Your task to perform on an android device: empty trash in google photos Image 0: 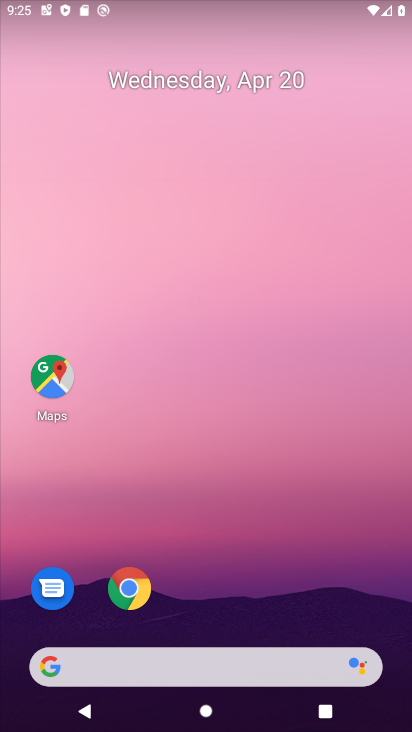
Step 0: drag from (194, 461) to (192, 154)
Your task to perform on an android device: empty trash in google photos Image 1: 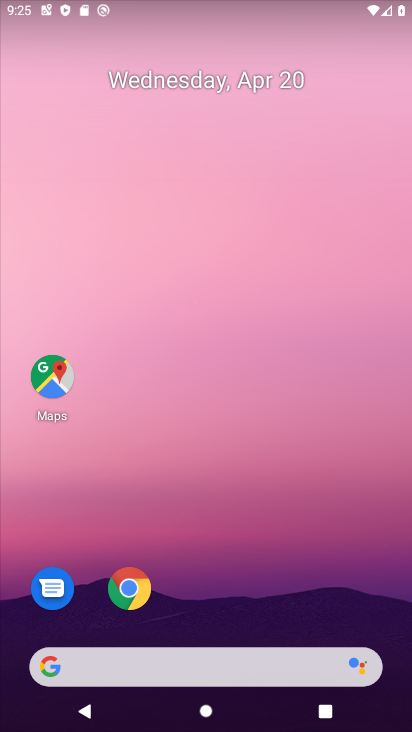
Step 1: drag from (222, 613) to (156, 133)
Your task to perform on an android device: empty trash in google photos Image 2: 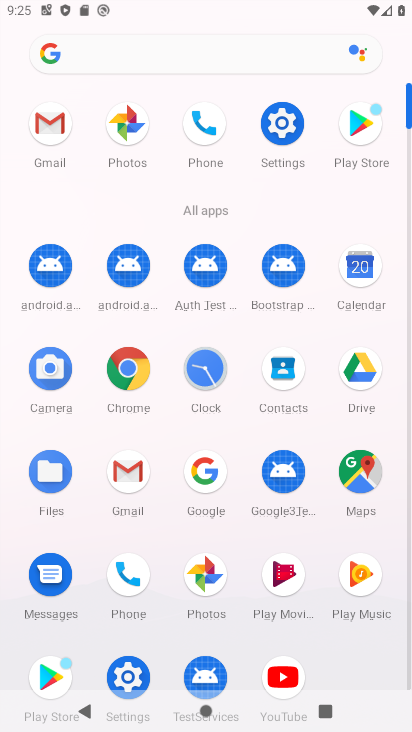
Step 2: click (129, 117)
Your task to perform on an android device: empty trash in google photos Image 3: 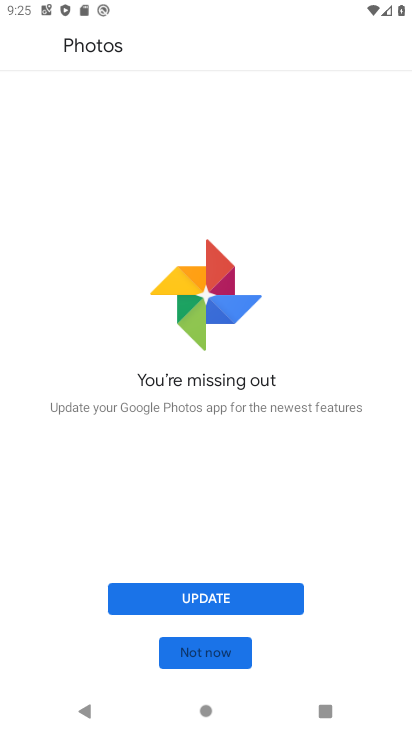
Step 3: click (216, 663)
Your task to perform on an android device: empty trash in google photos Image 4: 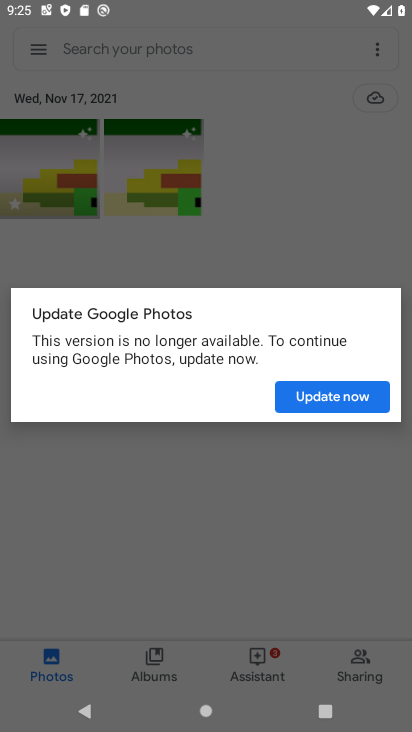
Step 4: click (343, 398)
Your task to perform on an android device: empty trash in google photos Image 5: 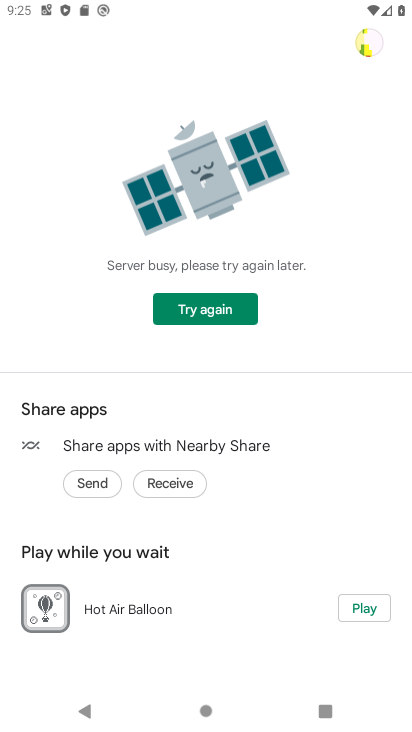
Step 5: click (205, 301)
Your task to perform on an android device: empty trash in google photos Image 6: 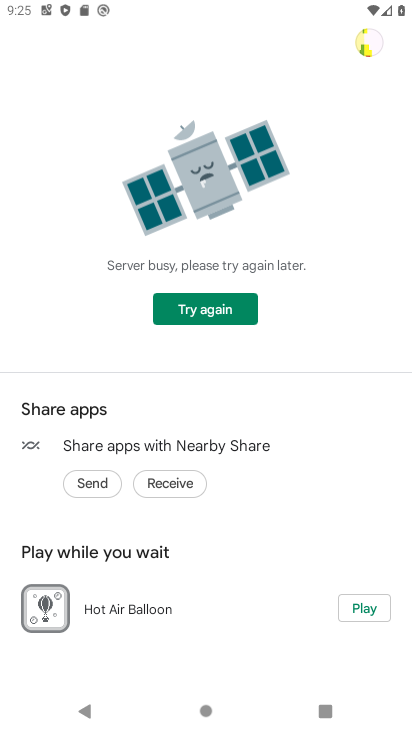
Step 6: press back button
Your task to perform on an android device: empty trash in google photos Image 7: 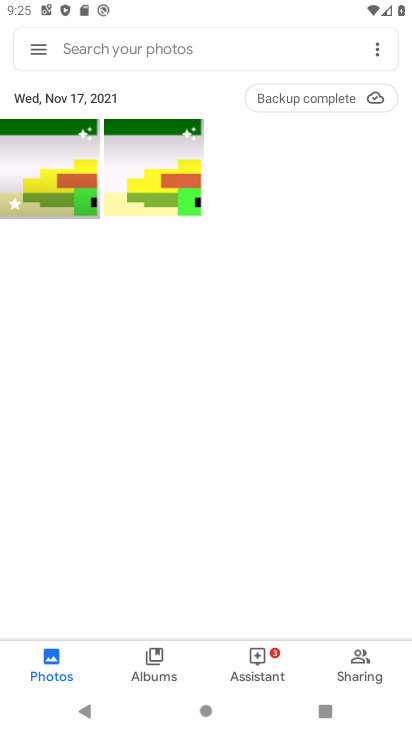
Step 7: click (42, 48)
Your task to perform on an android device: empty trash in google photos Image 8: 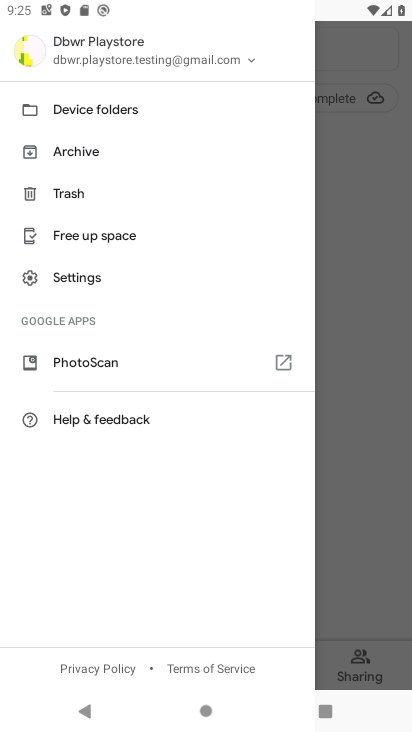
Step 8: click (59, 186)
Your task to perform on an android device: empty trash in google photos Image 9: 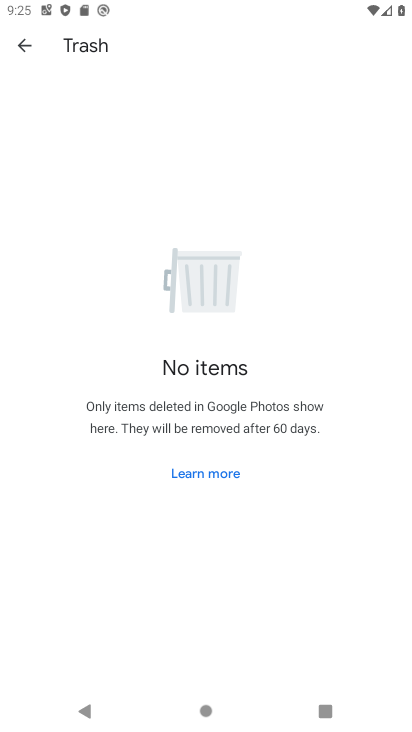
Step 9: task complete